Your task to perform on an android device: Show me recent news Image 0: 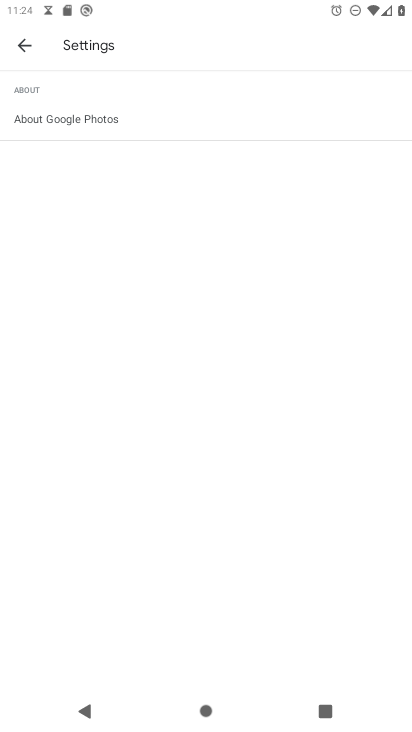
Step 0: press back button
Your task to perform on an android device: Show me recent news Image 1: 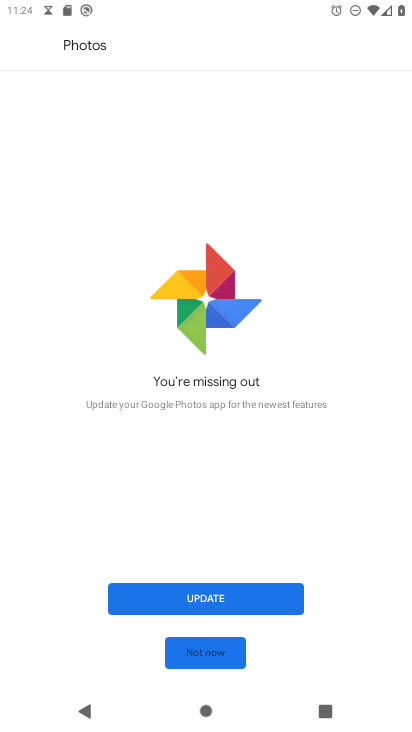
Step 1: press back button
Your task to perform on an android device: Show me recent news Image 2: 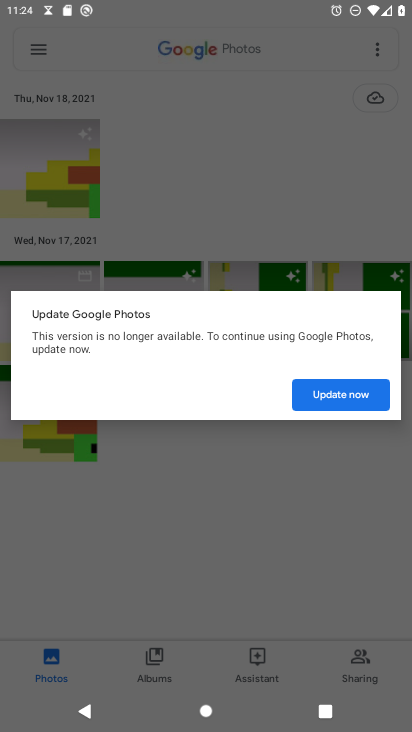
Step 2: press home button
Your task to perform on an android device: Show me recent news Image 3: 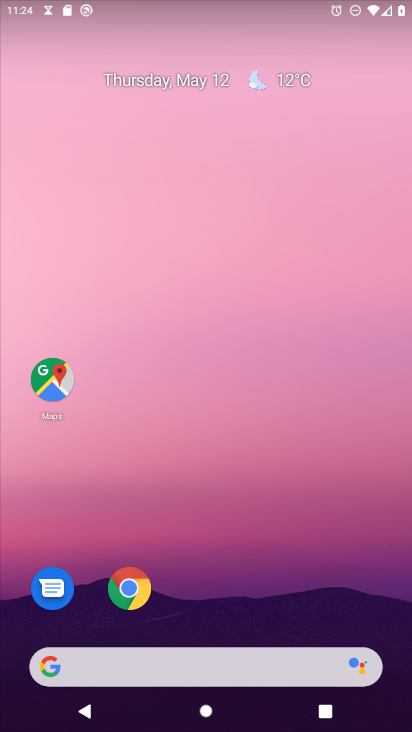
Step 3: drag from (223, 592) to (226, 189)
Your task to perform on an android device: Show me recent news Image 4: 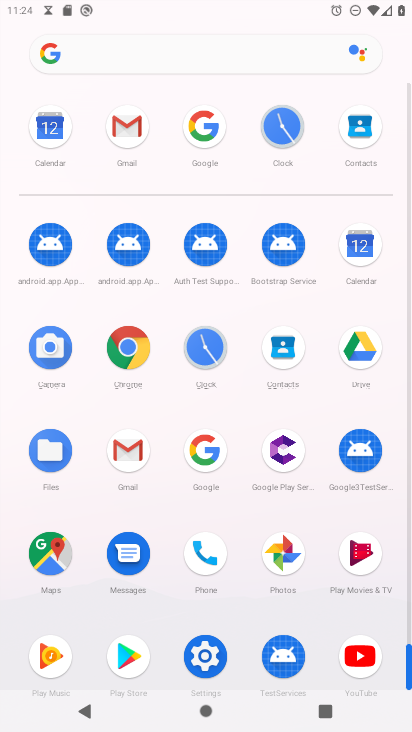
Step 4: click (200, 125)
Your task to perform on an android device: Show me recent news Image 5: 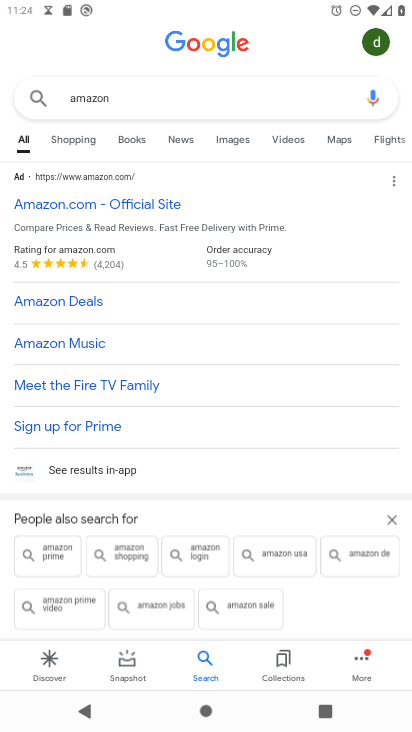
Step 5: click (194, 107)
Your task to perform on an android device: Show me recent news Image 6: 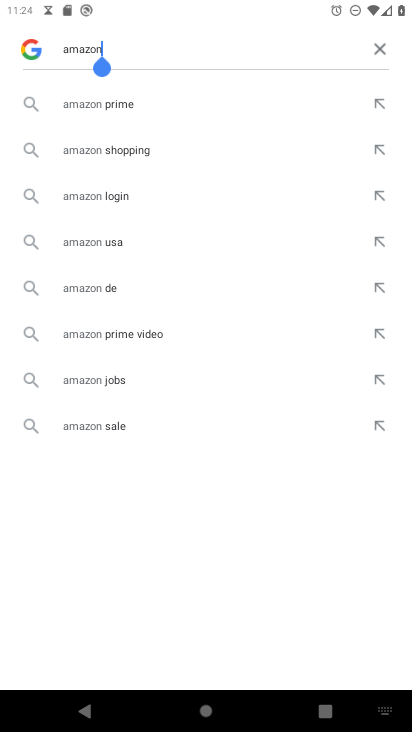
Step 6: click (372, 44)
Your task to perform on an android device: Show me recent news Image 7: 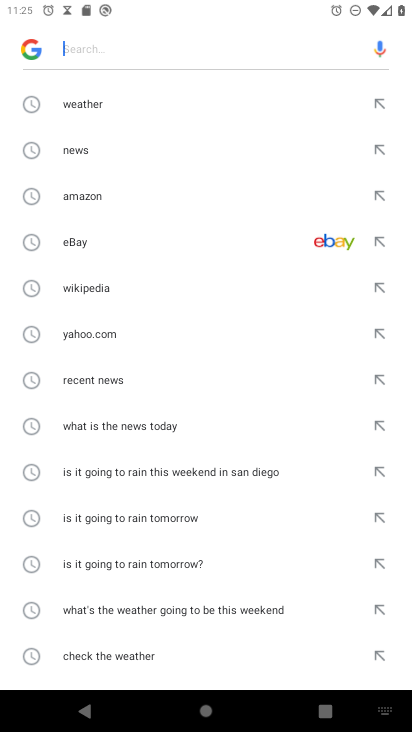
Step 7: click (114, 378)
Your task to perform on an android device: Show me recent news Image 8: 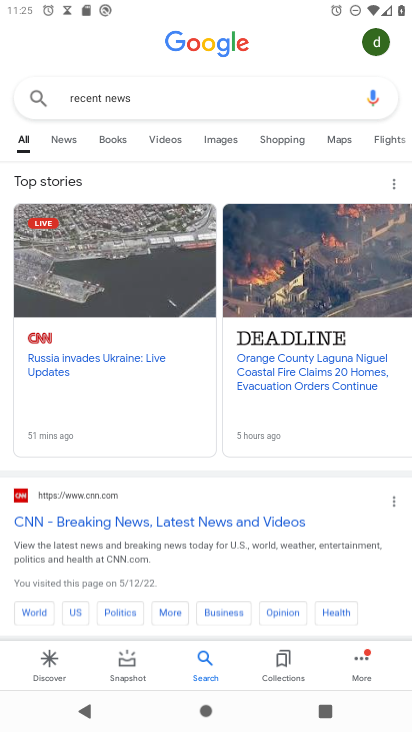
Step 8: task complete